Your task to perform on an android device: What's the weather? Image 0: 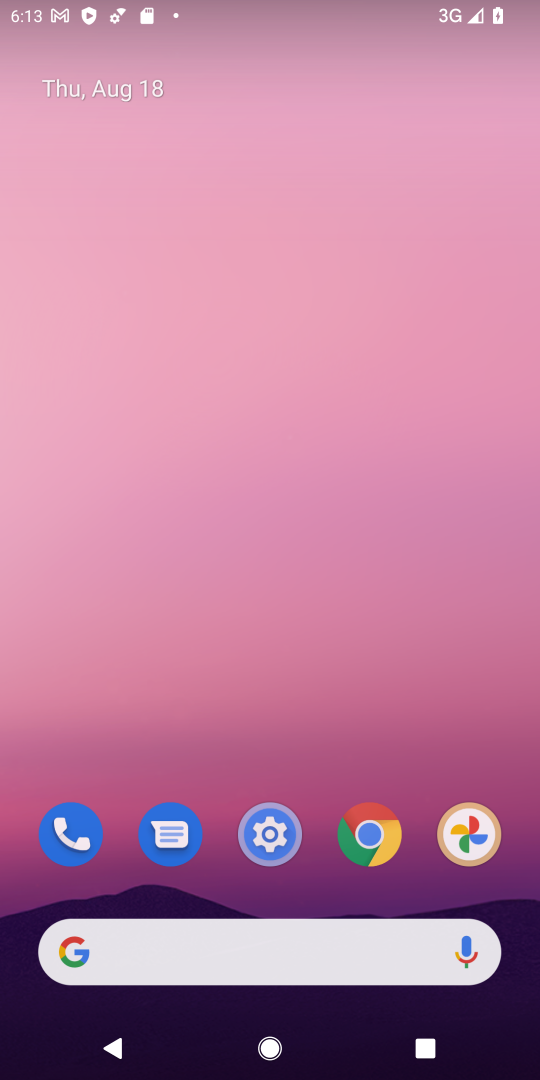
Step 0: press home button
Your task to perform on an android device: What's the weather? Image 1: 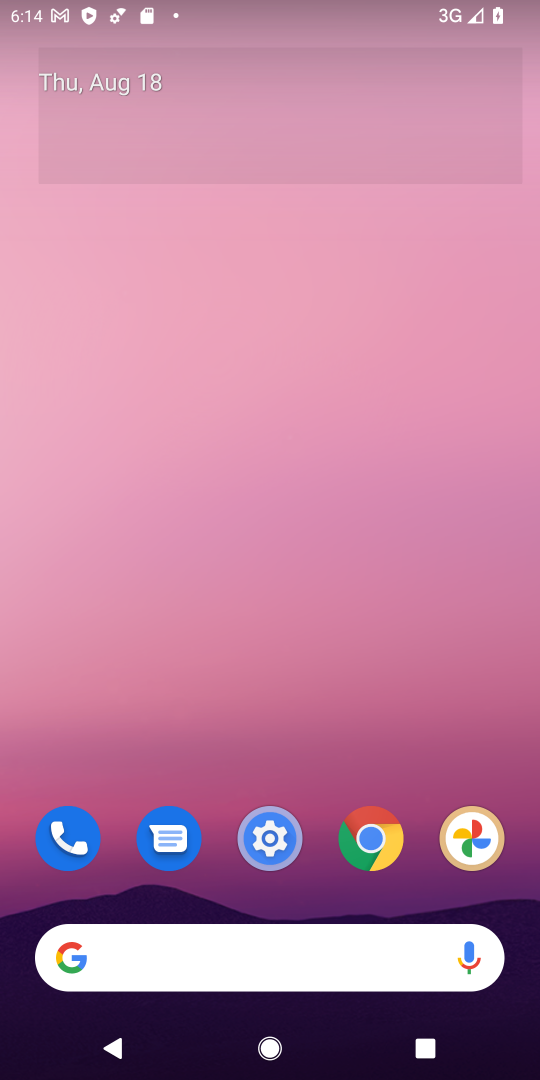
Step 1: click (64, 963)
Your task to perform on an android device: What's the weather? Image 2: 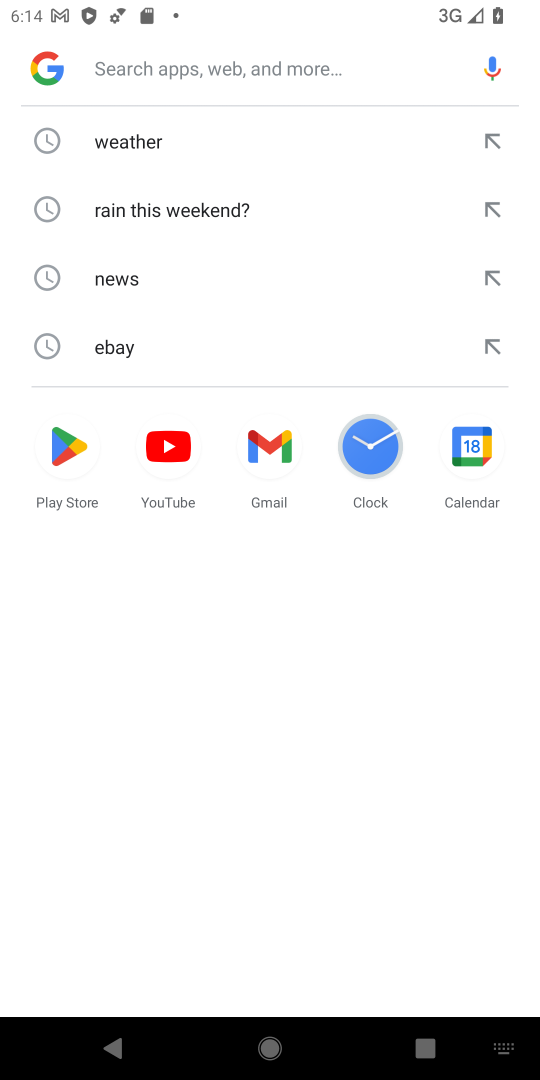
Step 2: click (124, 138)
Your task to perform on an android device: What's the weather? Image 3: 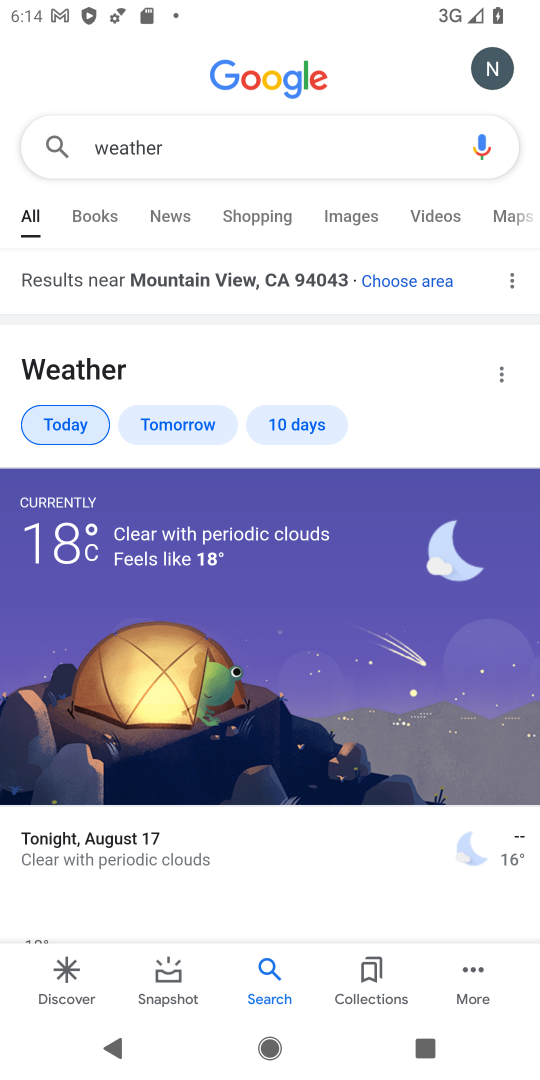
Step 3: task complete